Your task to perform on an android device: Is it going to rain today? Image 0: 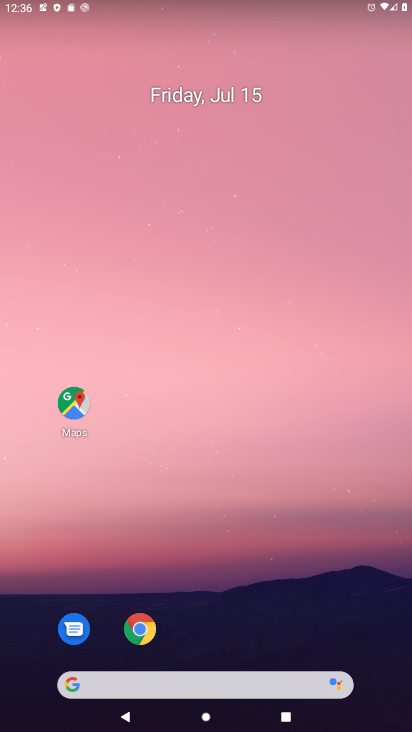
Step 0: click (66, 683)
Your task to perform on an android device: Is it going to rain today? Image 1: 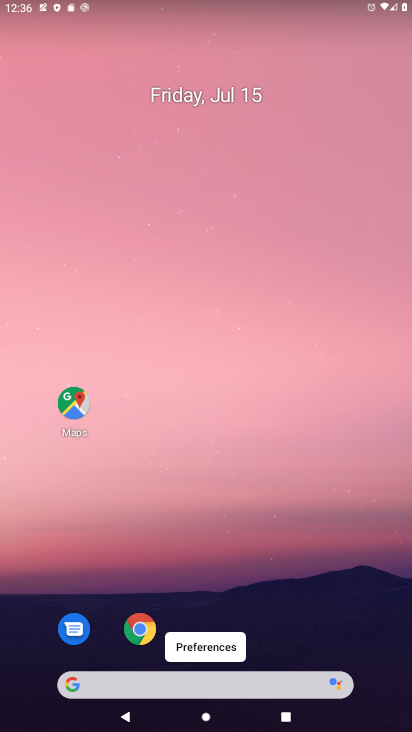
Step 1: click (75, 683)
Your task to perform on an android device: Is it going to rain today? Image 2: 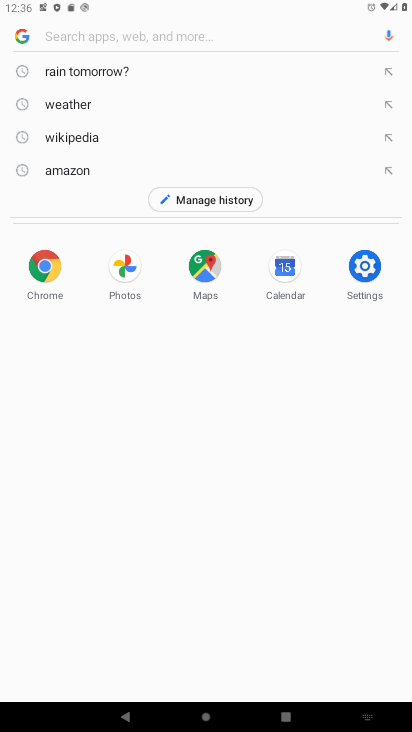
Step 2: type " rain today?"
Your task to perform on an android device: Is it going to rain today? Image 3: 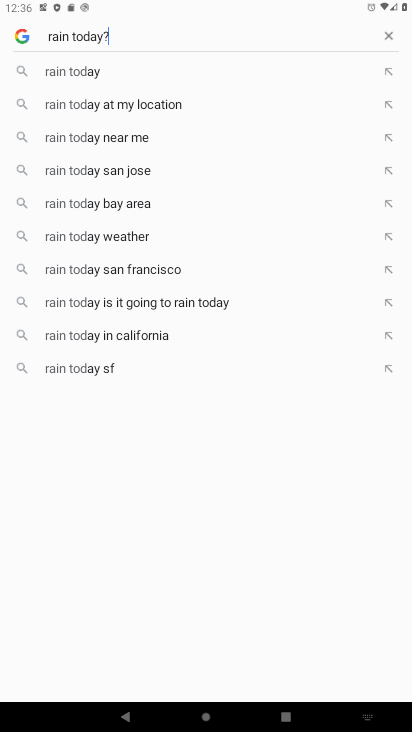
Step 3: press enter
Your task to perform on an android device: Is it going to rain today? Image 4: 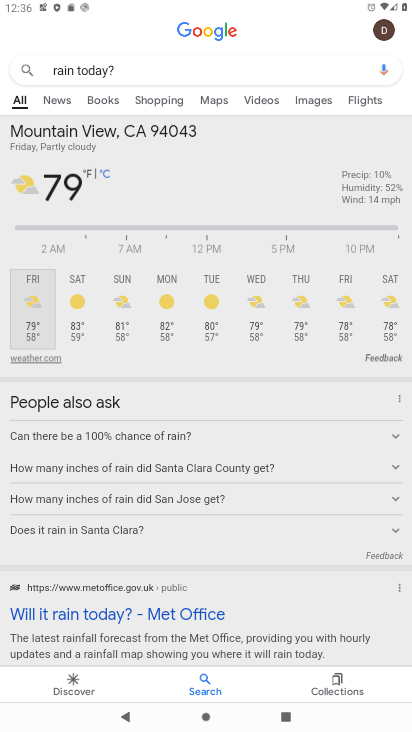
Step 4: task complete